Your task to perform on an android device: Search for seafood restaurants on Google Maps Image 0: 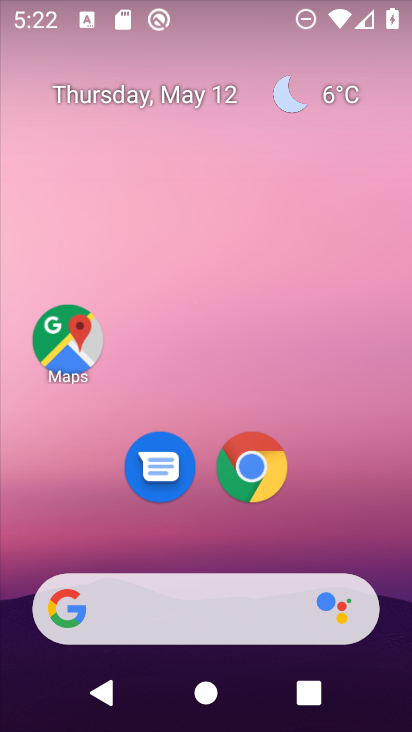
Step 0: click (389, 657)
Your task to perform on an android device: Search for seafood restaurants on Google Maps Image 1: 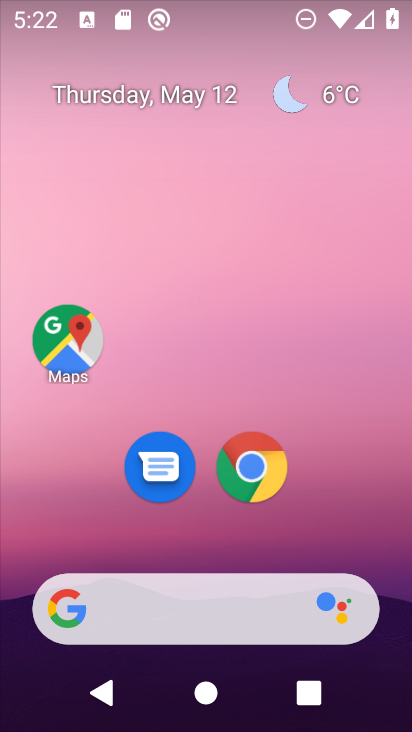
Step 1: drag from (240, 566) to (287, 11)
Your task to perform on an android device: Search for seafood restaurants on Google Maps Image 2: 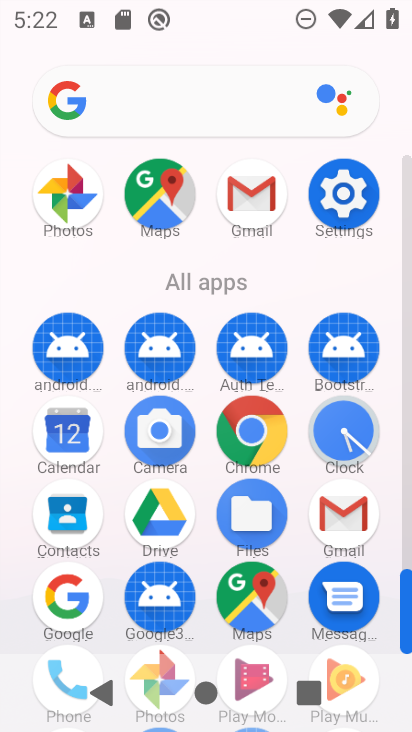
Step 2: click (259, 571)
Your task to perform on an android device: Search for seafood restaurants on Google Maps Image 3: 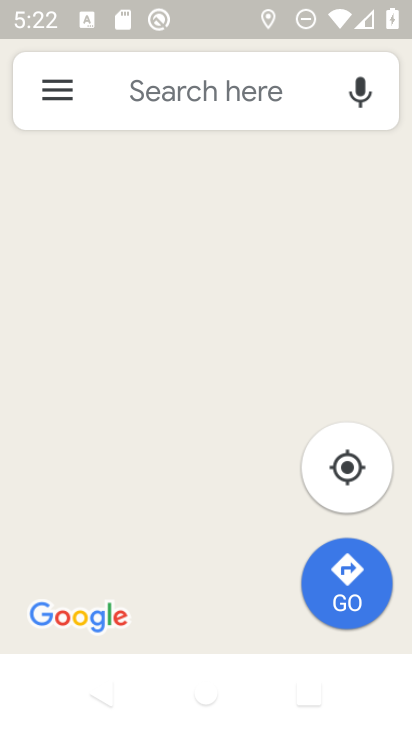
Step 3: click (206, 79)
Your task to perform on an android device: Search for seafood restaurants on Google Maps Image 4: 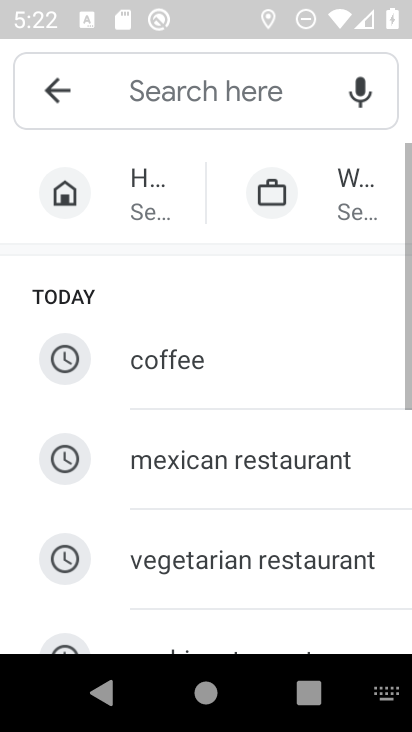
Step 4: type "seafood restaurant"
Your task to perform on an android device: Search for seafood restaurants on Google Maps Image 5: 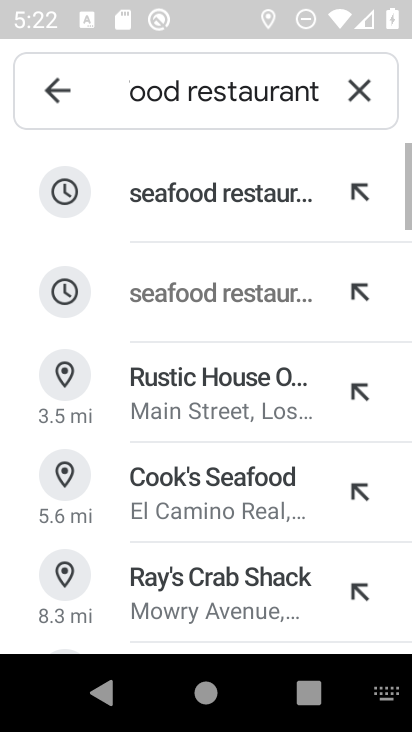
Step 5: click (238, 193)
Your task to perform on an android device: Search for seafood restaurants on Google Maps Image 6: 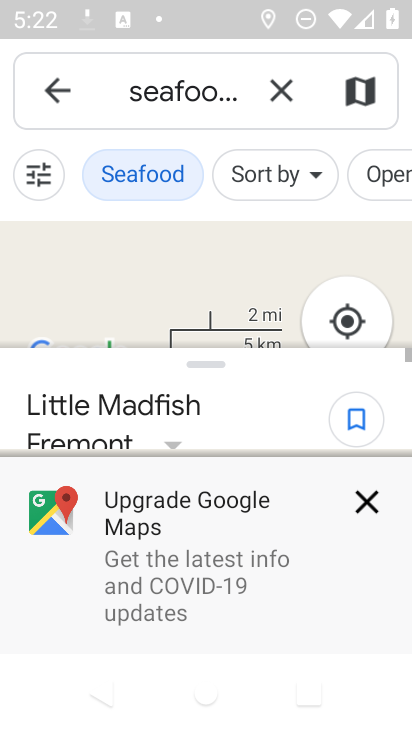
Step 6: task complete